Your task to perform on an android device: turn notification dots off Image 0: 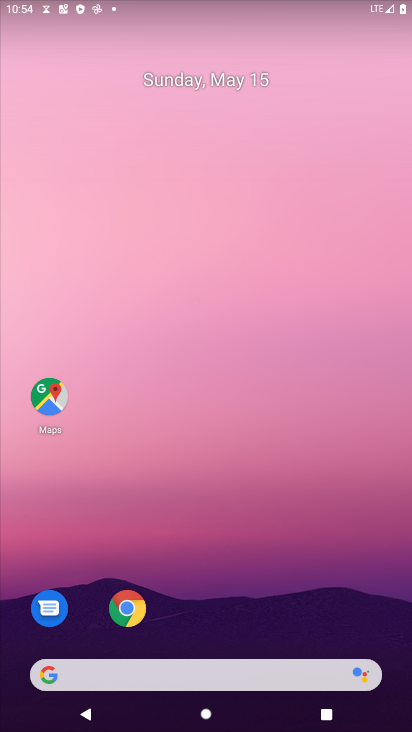
Step 0: press home button
Your task to perform on an android device: turn notification dots off Image 1: 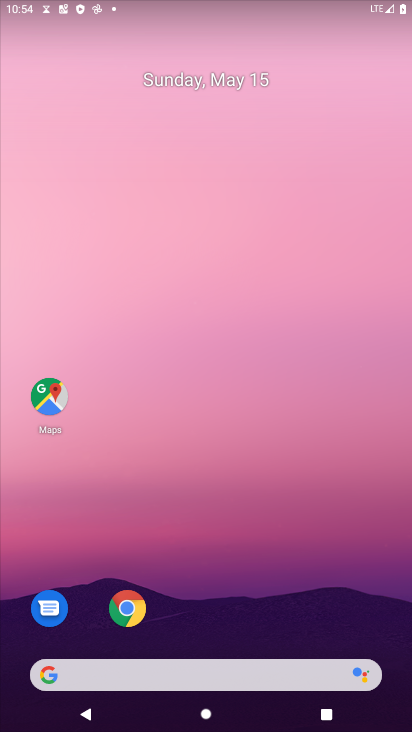
Step 1: drag from (281, 532) to (314, 99)
Your task to perform on an android device: turn notification dots off Image 2: 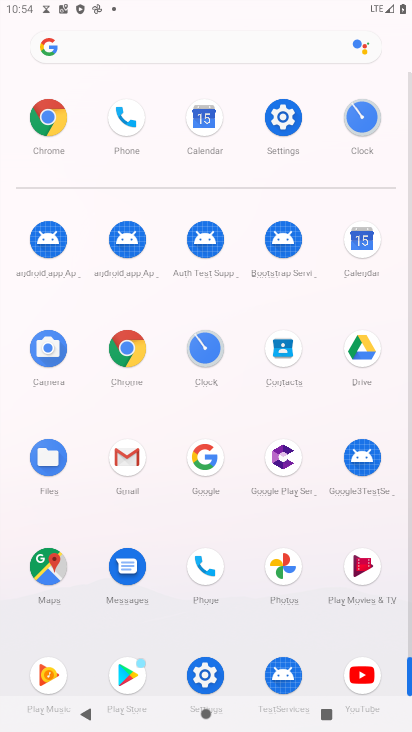
Step 2: click (290, 120)
Your task to perform on an android device: turn notification dots off Image 3: 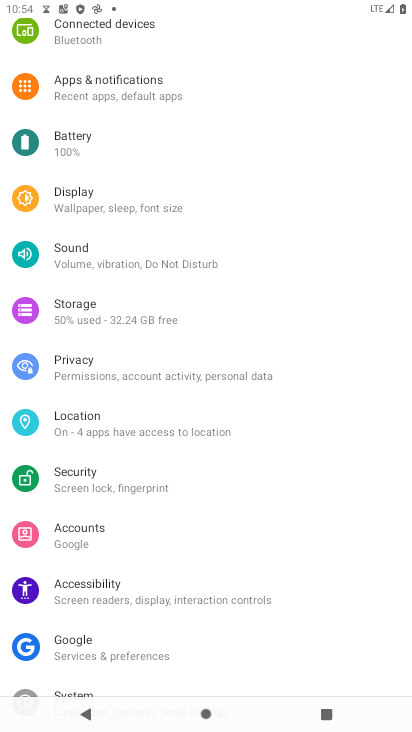
Step 3: drag from (188, 263) to (160, 555)
Your task to perform on an android device: turn notification dots off Image 4: 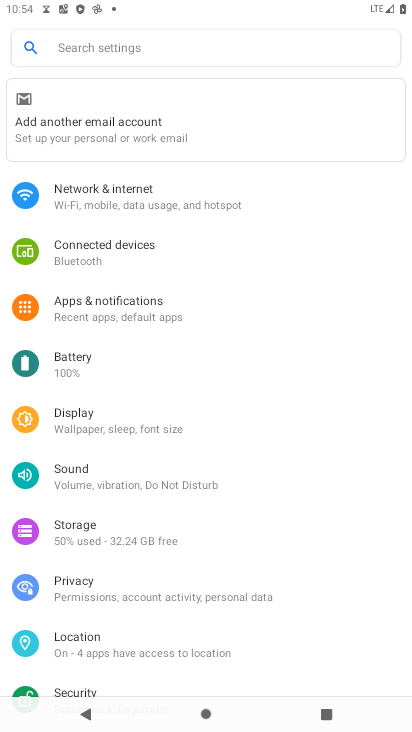
Step 4: click (143, 314)
Your task to perform on an android device: turn notification dots off Image 5: 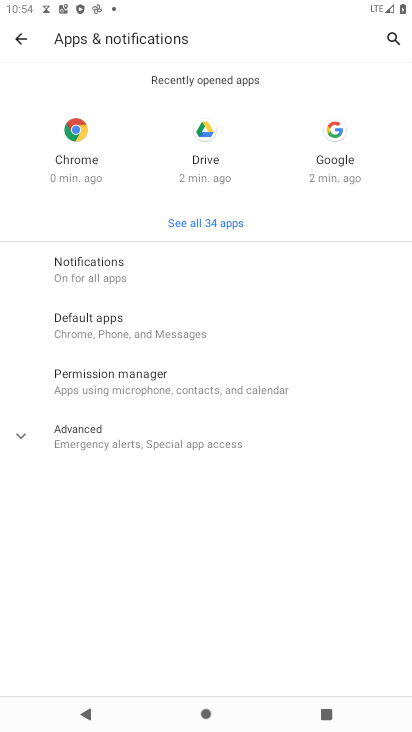
Step 5: click (116, 287)
Your task to perform on an android device: turn notification dots off Image 6: 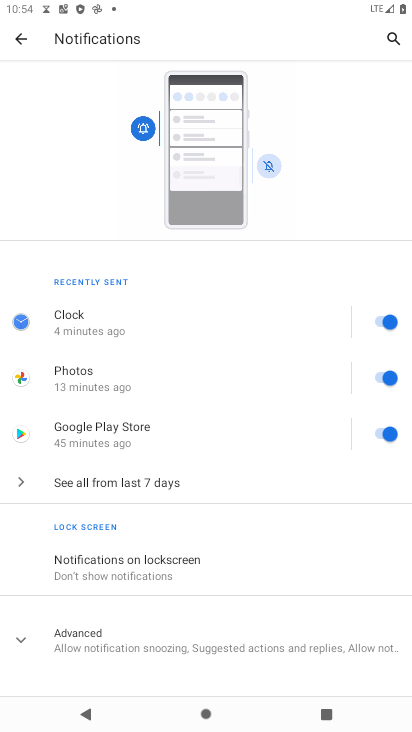
Step 6: drag from (174, 637) to (188, 252)
Your task to perform on an android device: turn notification dots off Image 7: 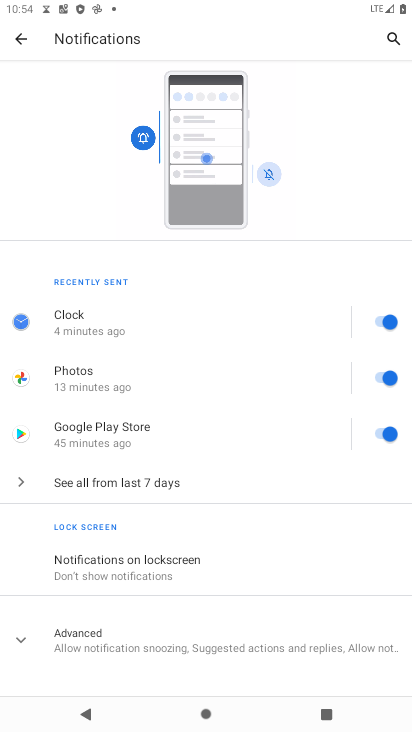
Step 7: click (164, 646)
Your task to perform on an android device: turn notification dots off Image 8: 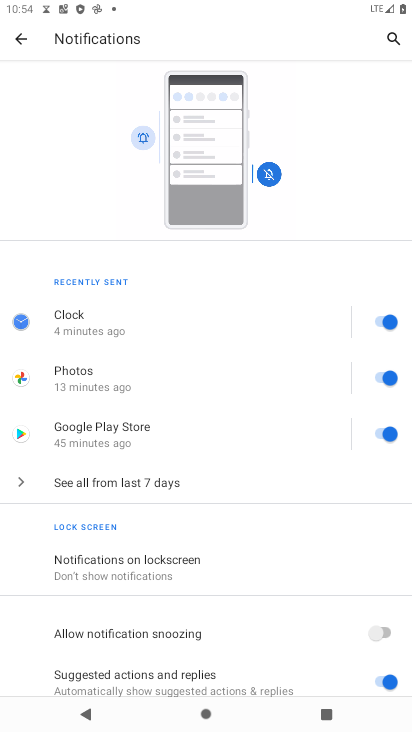
Step 8: drag from (233, 398) to (245, 326)
Your task to perform on an android device: turn notification dots off Image 9: 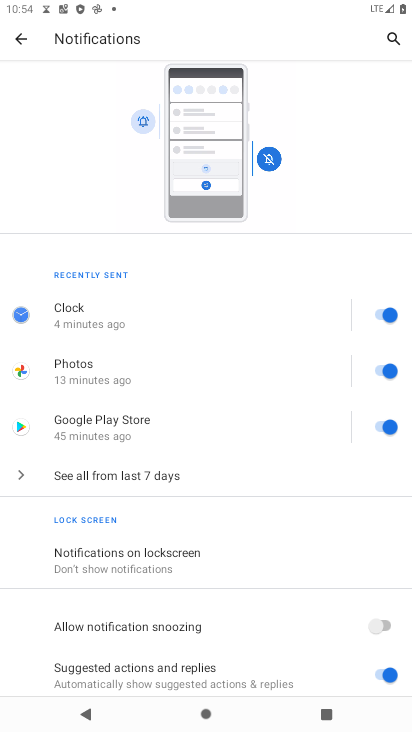
Step 9: drag from (184, 666) to (200, 347)
Your task to perform on an android device: turn notification dots off Image 10: 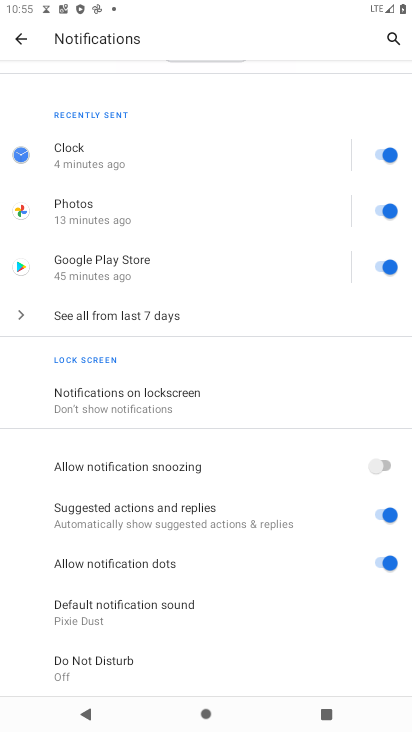
Step 10: click (385, 562)
Your task to perform on an android device: turn notification dots off Image 11: 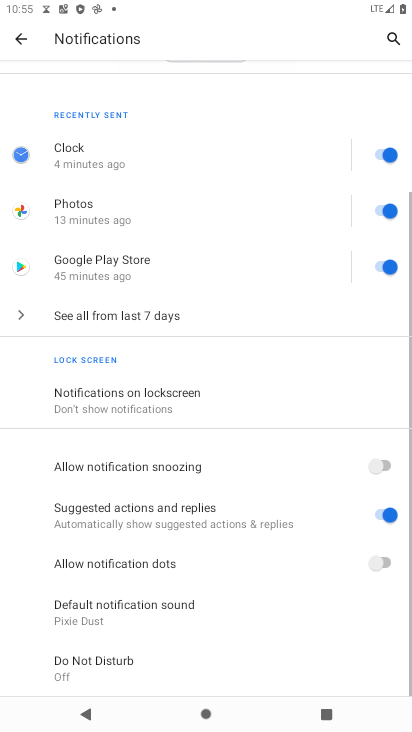
Step 11: task complete